Your task to perform on an android device: Go to settings Image 0: 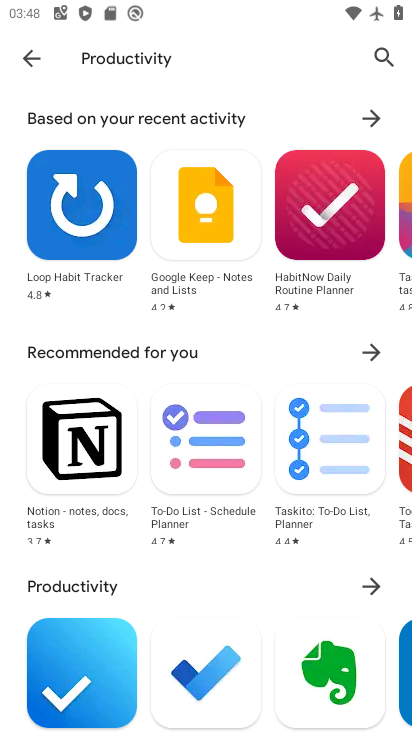
Step 0: press home button
Your task to perform on an android device: Go to settings Image 1: 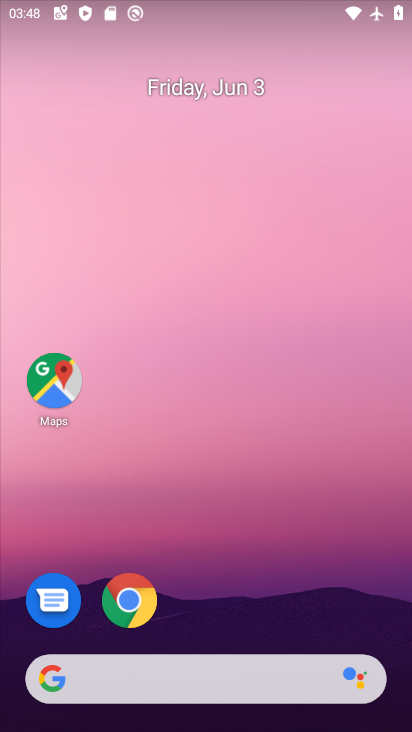
Step 1: drag from (225, 629) to (319, 25)
Your task to perform on an android device: Go to settings Image 2: 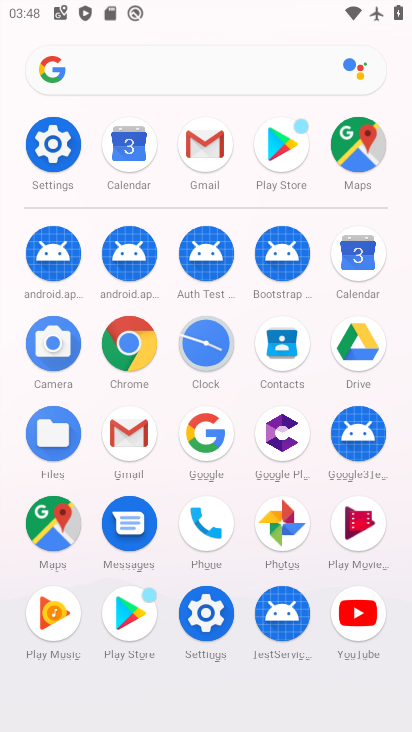
Step 2: click (58, 179)
Your task to perform on an android device: Go to settings Image 3: 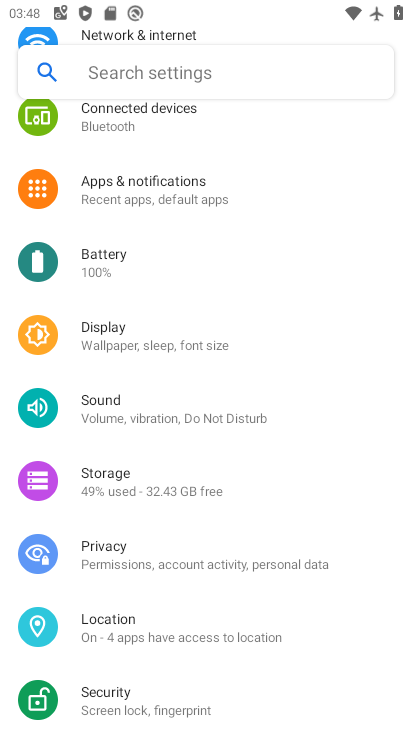
Step 3: task complete